Your task to perform on an android device: turn on location history Image 0: 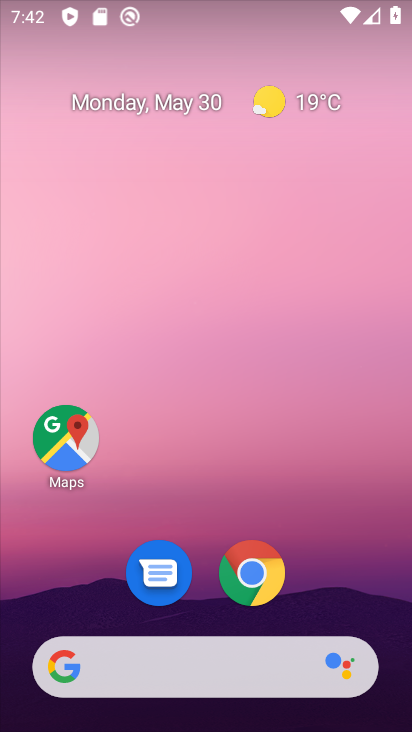
Step 0: drag from (212, 620) to (242, 449)
Your task to perform on an android device: turn on location history Image 1: 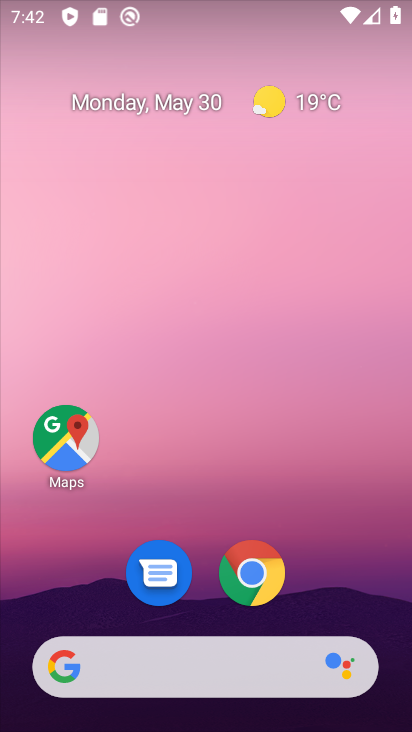
Step 1: drag from (205, 607) to (218, 264)
Your task to perform on an android device: turn on location history Image 2: 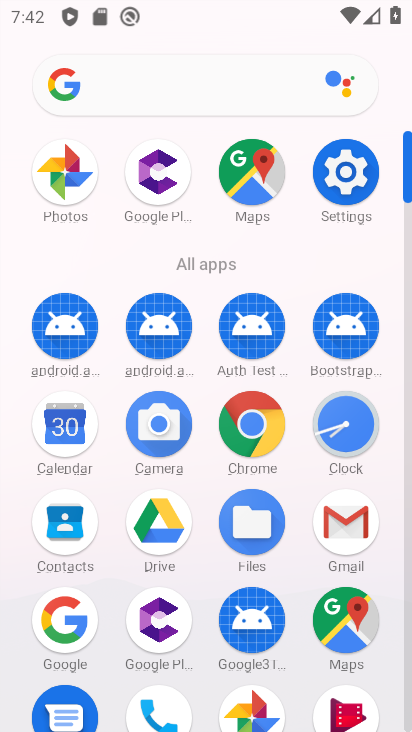
Step 2: click (352, 191)
Your task to perform on an android device: turn on location history Image 3: 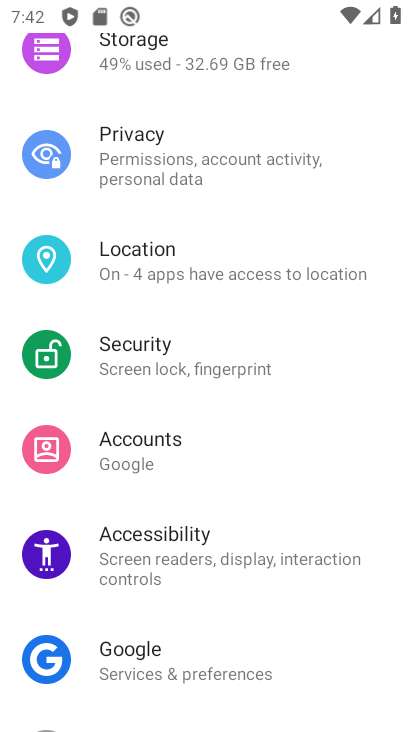
Step 3: click (200, 262)
Your task to perform on an android device: turn on location history Image 4: 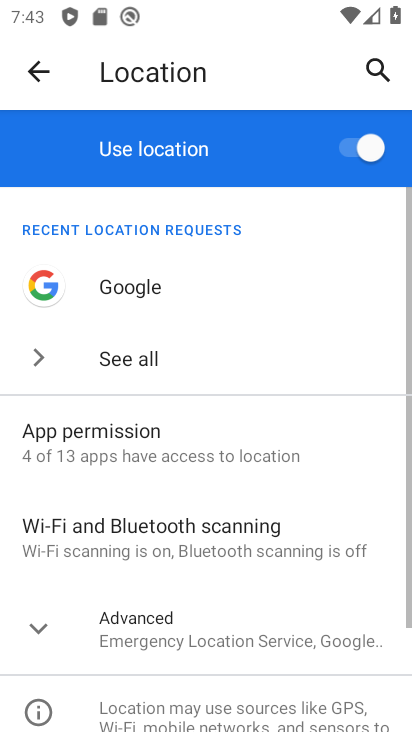
Step 4: drag from (182, 578) to (219, 346)
Your task to perform on an android device: turn on location history Image 5: 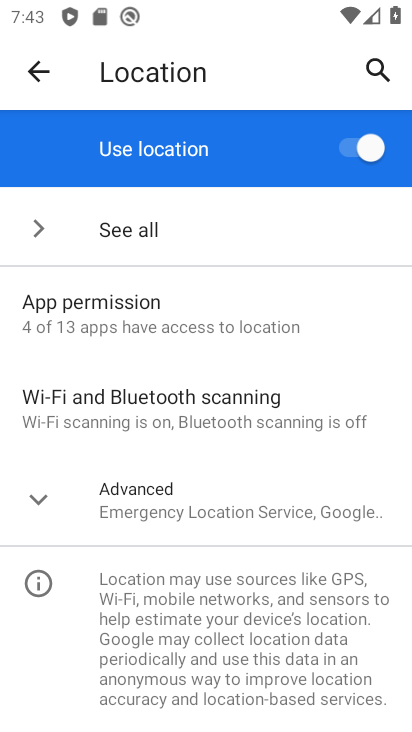
Step 5: click (43, 497)
Your task to perform on an android device: turn on location history Image 6: 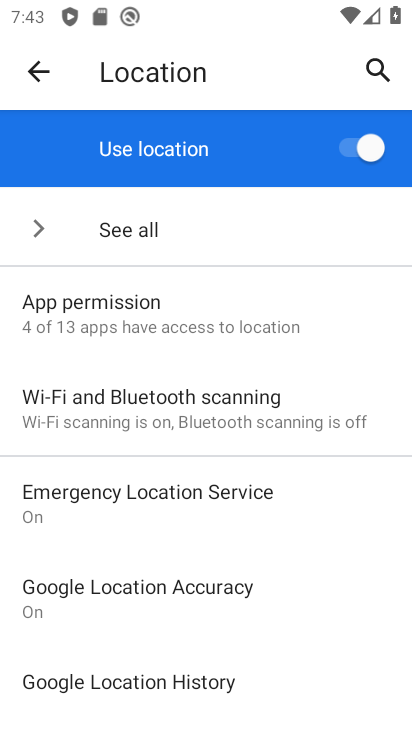
Step 6: drag from (151, 622) to (157, 450)
Your task to perform on an android device: turn on location history Image 7: 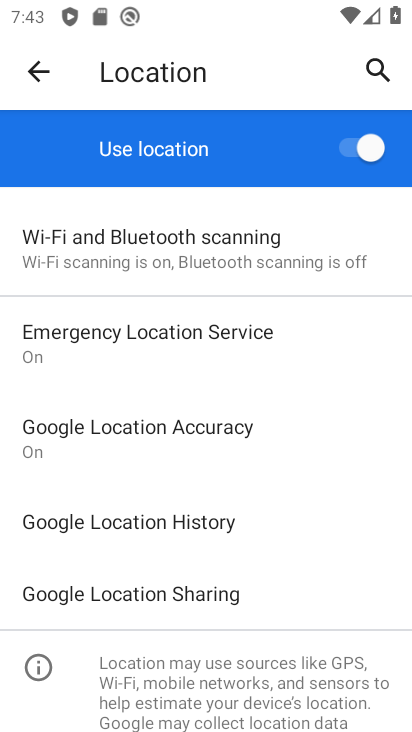
Step 7: click (159, 535)
Your task to perform on an android device: turn on location history Image 8: 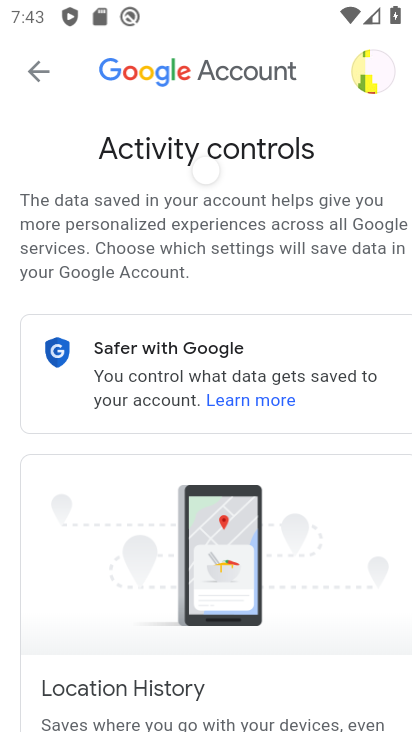
Step 8: task complete